Your task to perform on an android device: Go to Android settings Image 0: 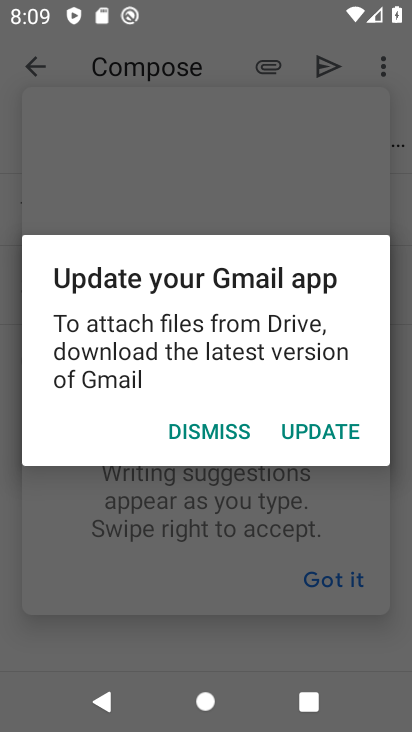
Step 0: press home button
Your task to perform on an android device: Go to Android settings Image 1: 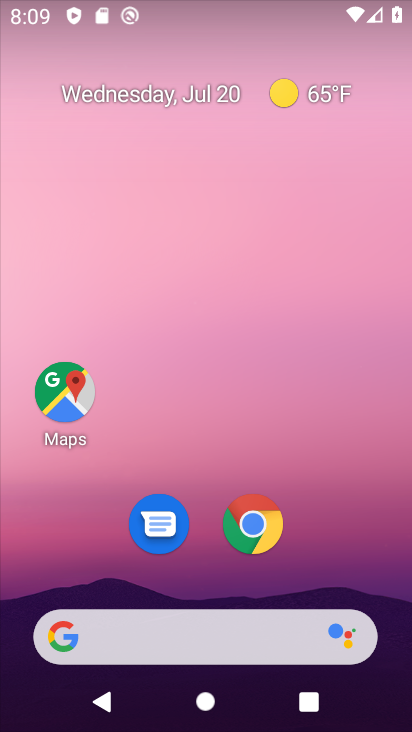
Step 1: drag from (316, 541) to (307, 23)
Your task to perform on an android device: Go to Android settings Image 2: 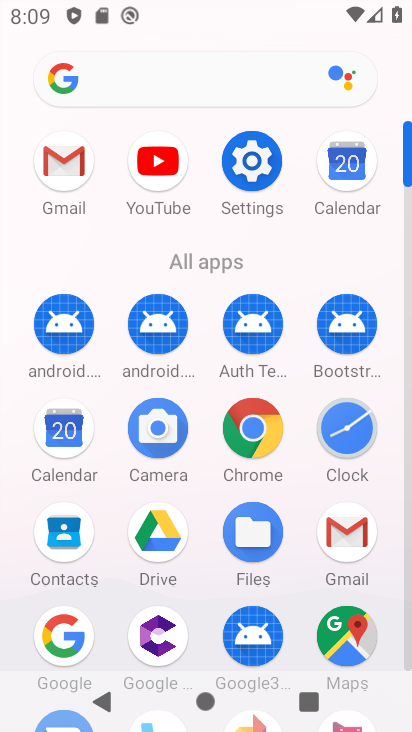
Step 2: click (252, 149)
Your task to perform on an android device: Go to Android settings Image 3: 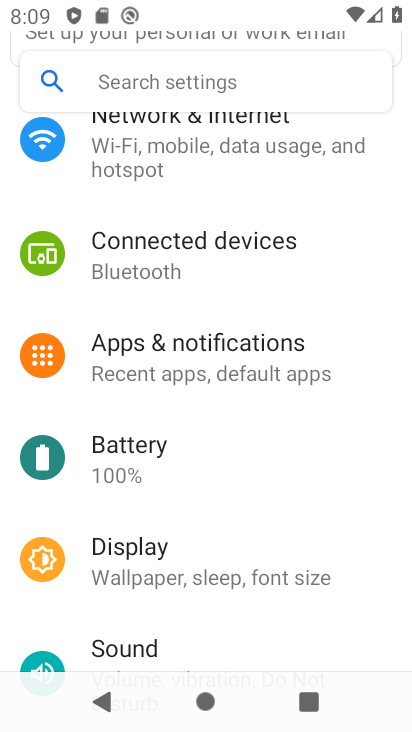
Step 3: drag from (252, 529) to (250, 49)
Your task to perform on an android device: Go to Android settings Image 4: 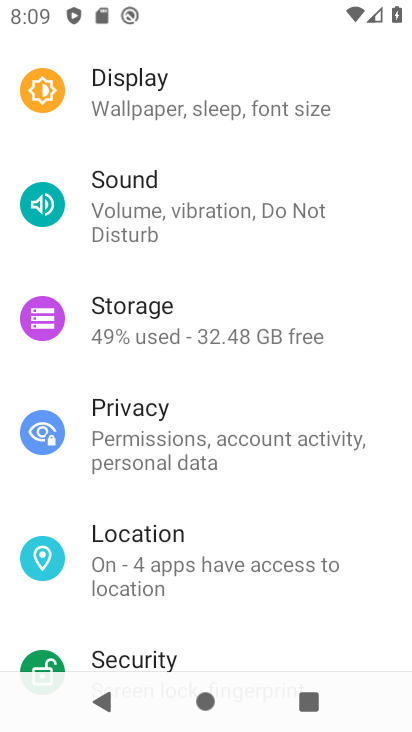
Step 4: drag from (235, 408) to (252, 56)
Your task to perform on an android device: Go to Android settings Image 5: 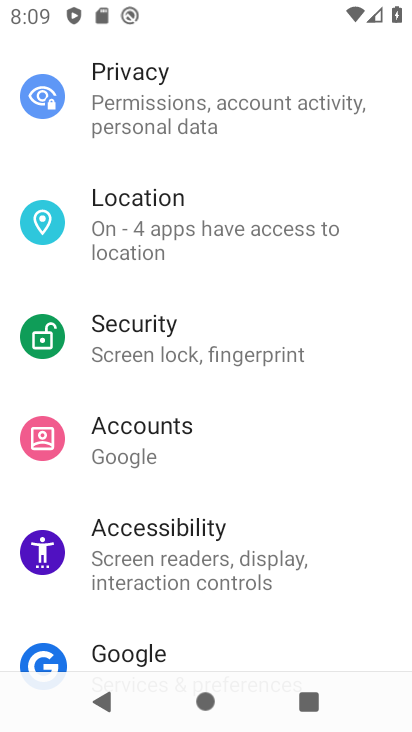
Step 5: drag from (253, 606) to (241, 30)
Your task to perform on an android device: Go to Android settings Image 6: 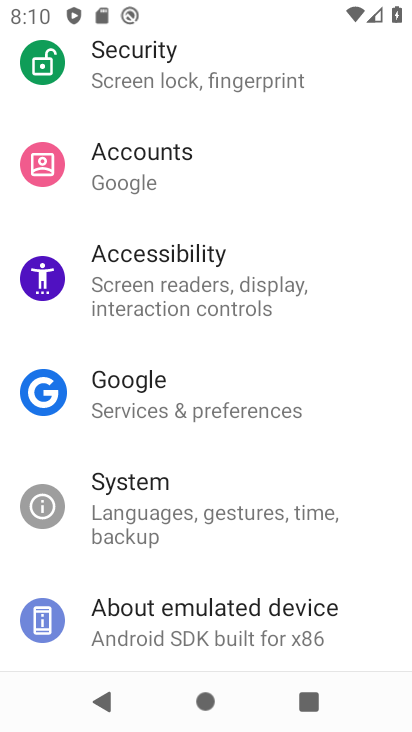
Step 6: click (230, 636)
Your task to perform on an android device: Go to Android settings Image 7: 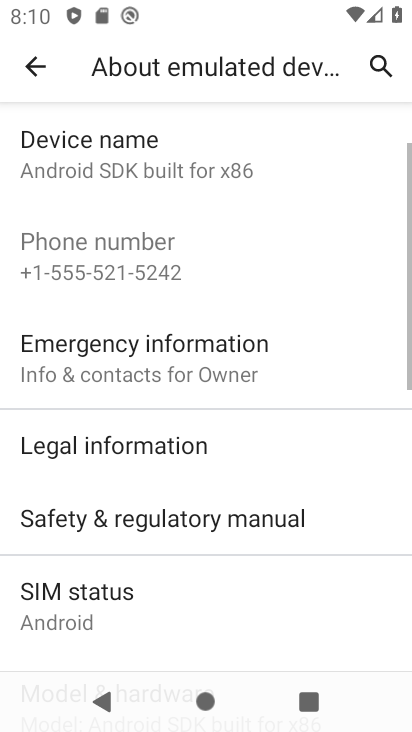
Step 7: task complete